Your task to perform on an android device: Open eBay Image 0: 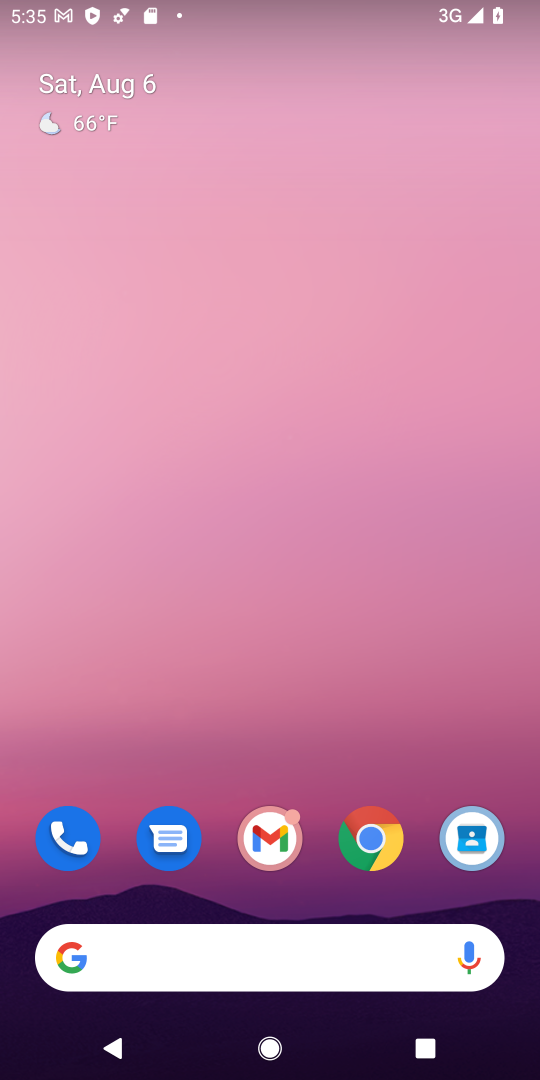
Step 0: click (312, 693)
Your task to perform on an android device: Open eBay Image 1: 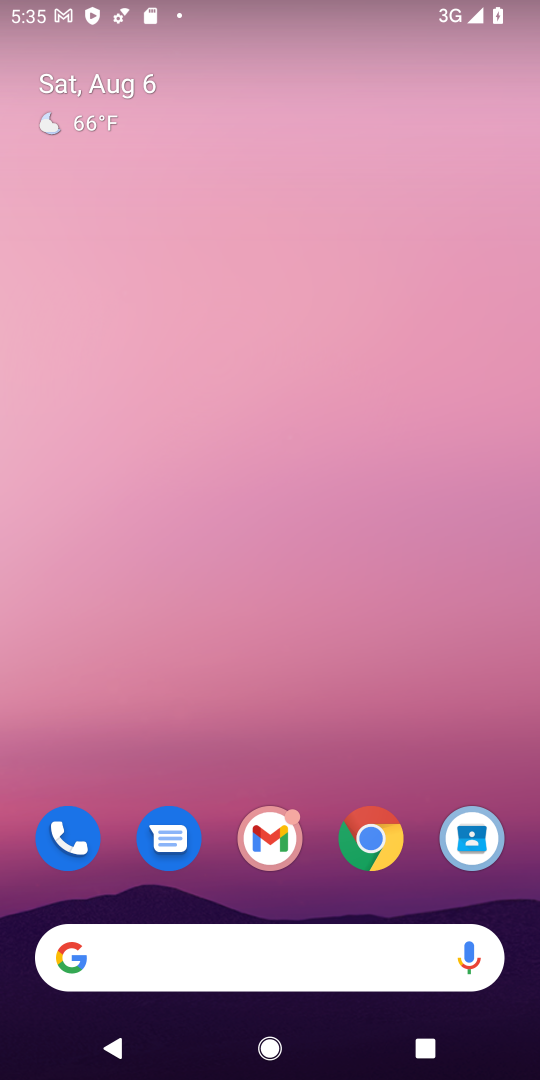
Step 1: drag from (203, 723) to (316, 10)
Your task to perform on an android device: Open eBay Image 2: 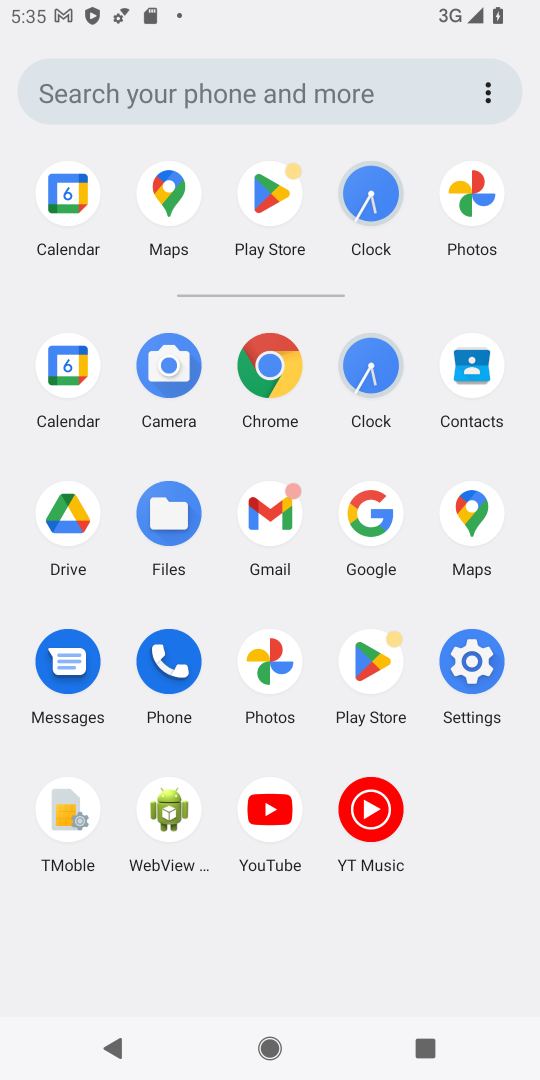
Step 2: click (267, 391)
Your task to perform on an android device: Open eBay Image 3: 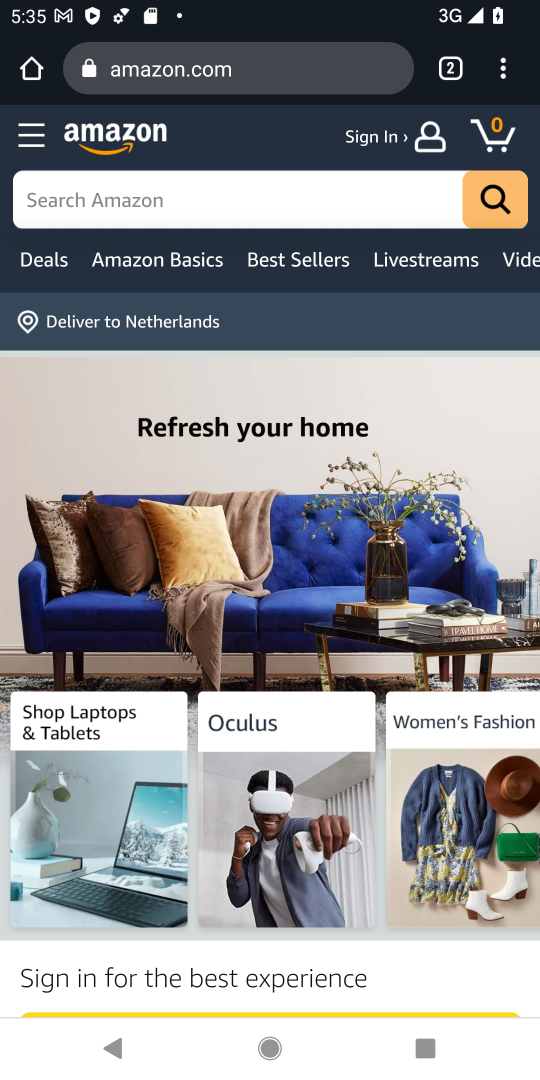
Step 3: click (463, 66)
Your task to perform on an android device: Open eBay Image 4: 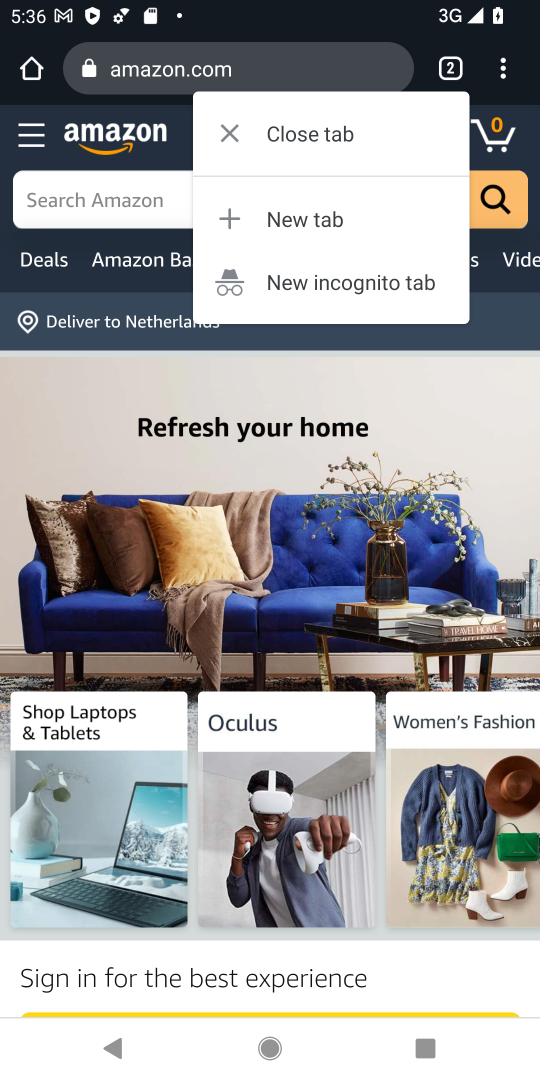
Step 4: click (370, 216)
Your task to perform on an android device: Open eBay Image 5: 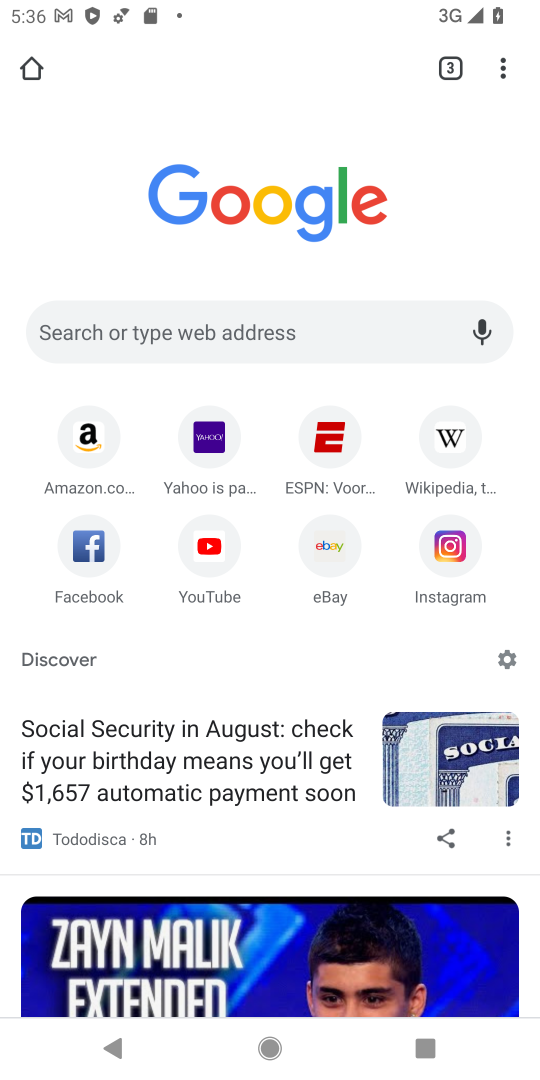
Step 5: click (317, 567)
Your task to perform on an android device: Open eBay Image 6: 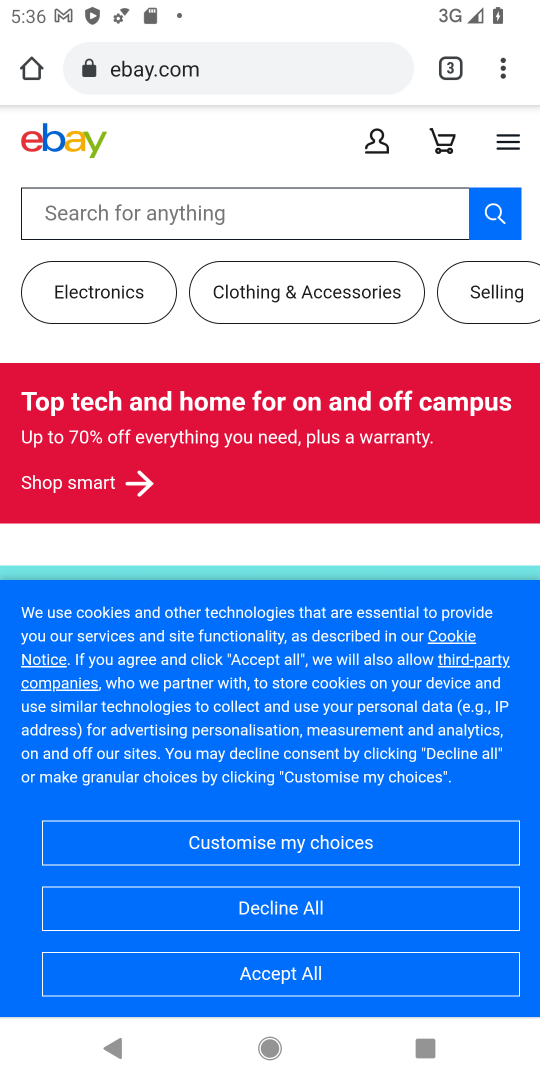
Step 6: task complete